Your task to perform on an android device: toggle pop-ups in chrome Image 0: 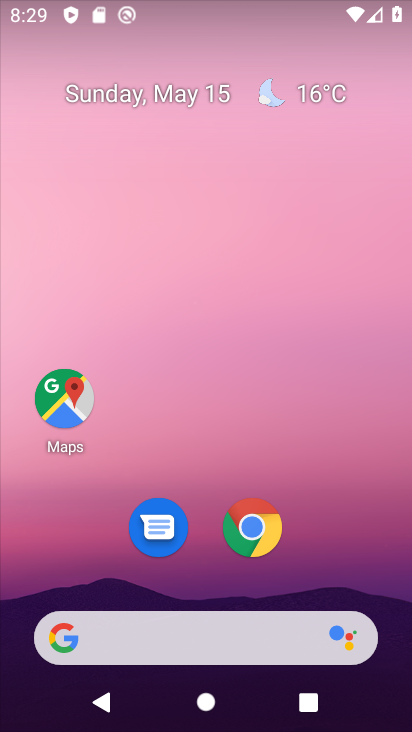
Step 0: click (256, 541)
Your task to perform on an android device: toggle pop-ups in chrome Image 1: 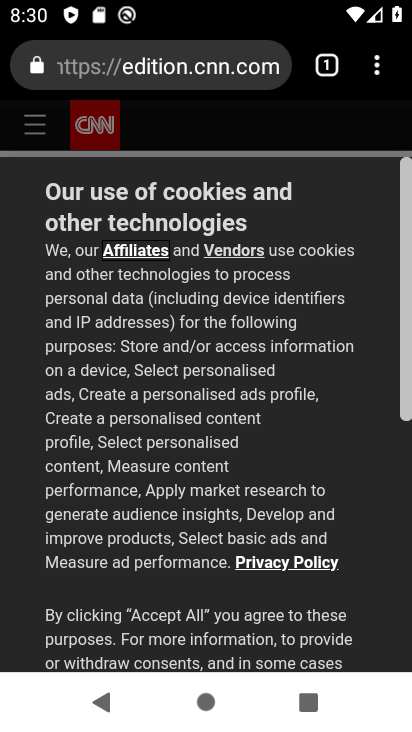
Step 1: click (378, 71)
Your task to perform on an android device: toggle pop-ups in chrome Image 2: 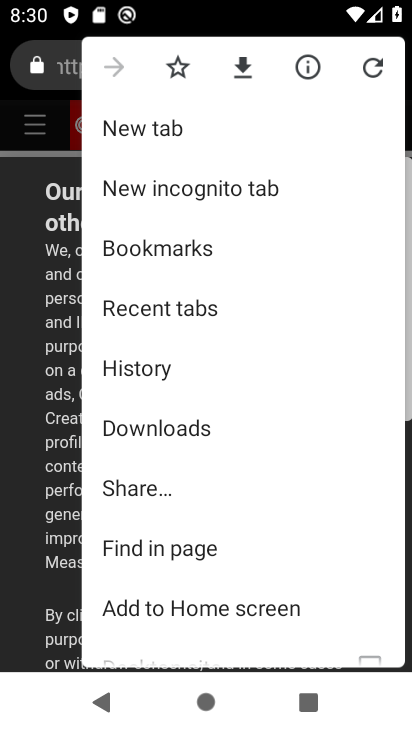
Step 2: drag from (272, 489) to (241, 175)
Your task to perform on an android device: toggle pop-ups in chrome Image 3: 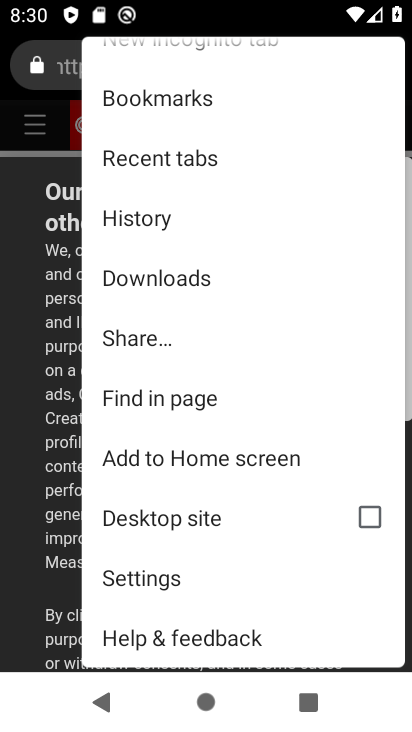
Step 3: click (140, 586)
Your task to perform on an android device: toggle pop-ups in chrome Image 4: 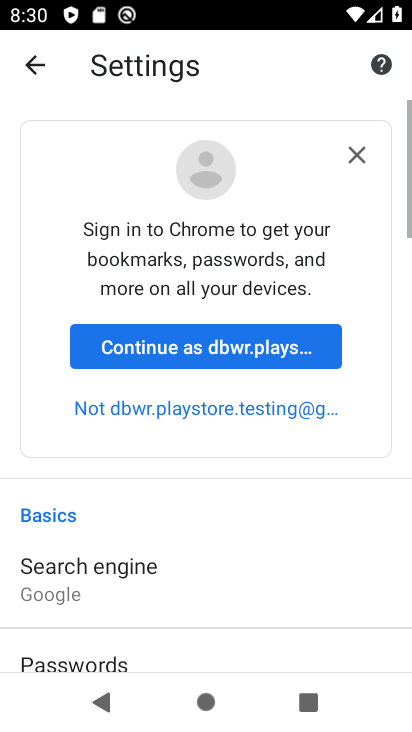
Step 4: drag from (243, 600) to (201, 171)
Your task to perform on an android device: toggle pop-ups in chrome Image 5: 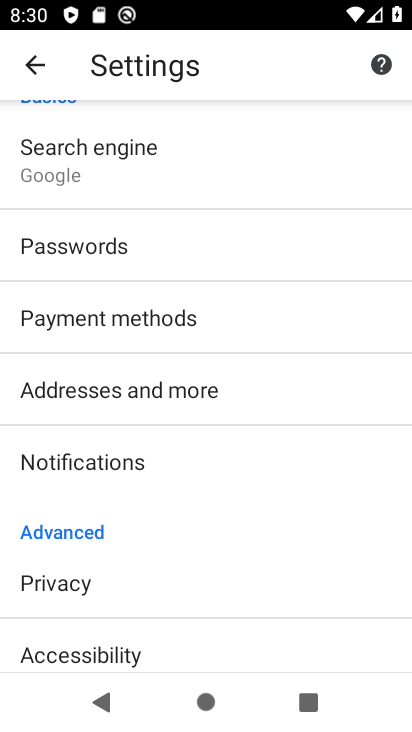
Step 5: drag from (232, 530) to (205, 194)
Your task to perform on an android device: toggle pop-ups in chrome Image 6: 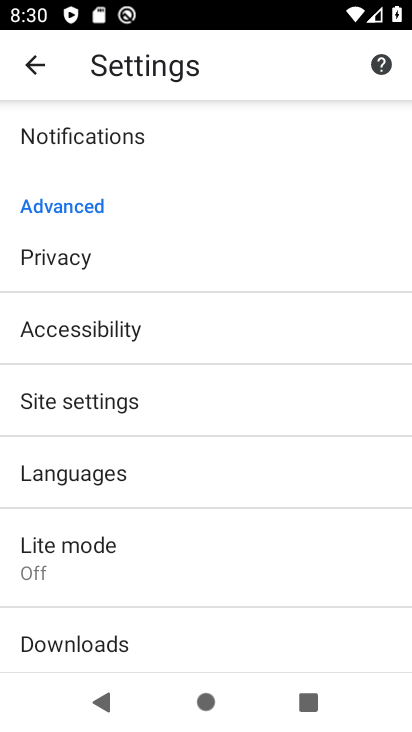
Step 6: click (122, 397)
Your task to perform on an android device: toggle pop-ups in chrome Image 7: 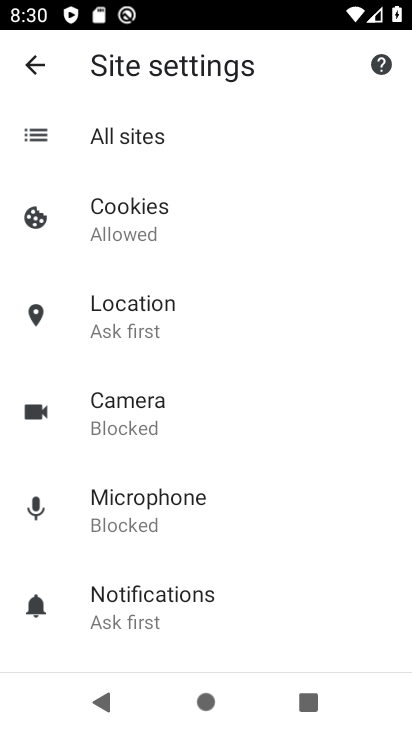
Step 7: drag from (256, 544) to (207, 205)
Your task to perform on an android device: toggle pop-ups in chrome Image 8: 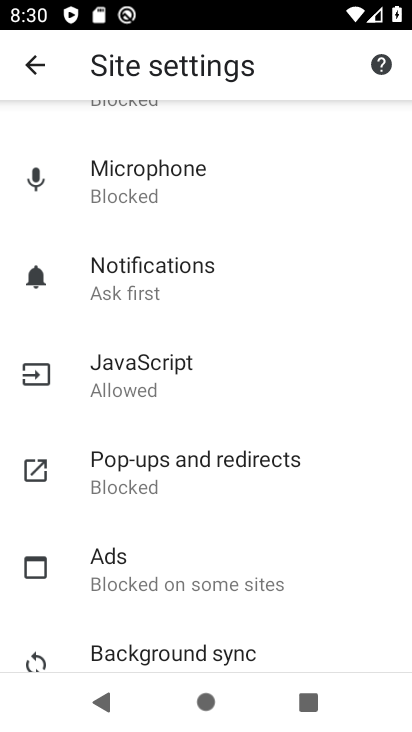
Step 8: click (135, 465)
Your task to perform on an android device: toggle pop-ups in chrome Image 9: 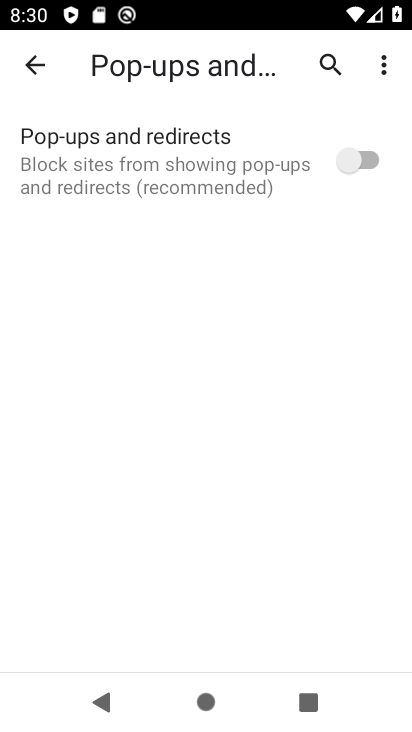
Step 9: click (345, 154)
Your task to perform on an android device: toggle pop-ups in chrome Image 10: 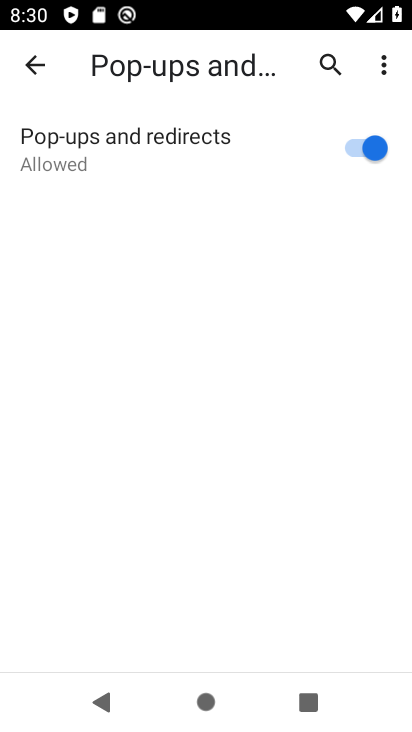
Step 10: task complete